Your task to perform on an android device: Open privacy settings Image 0: 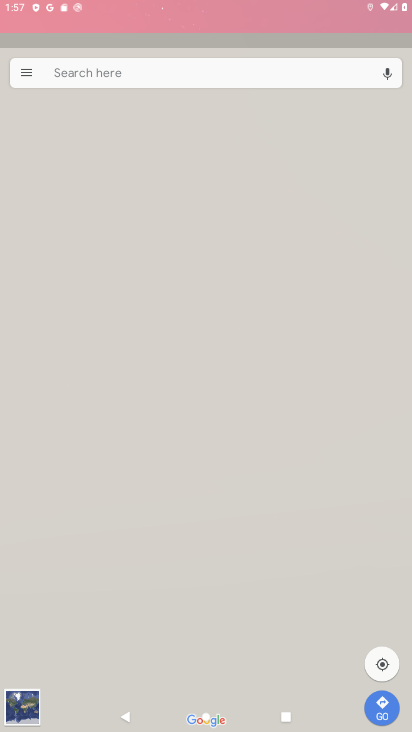
Step 0: press home button
Your task to perform on an android device: Open privacy settings Image 1: 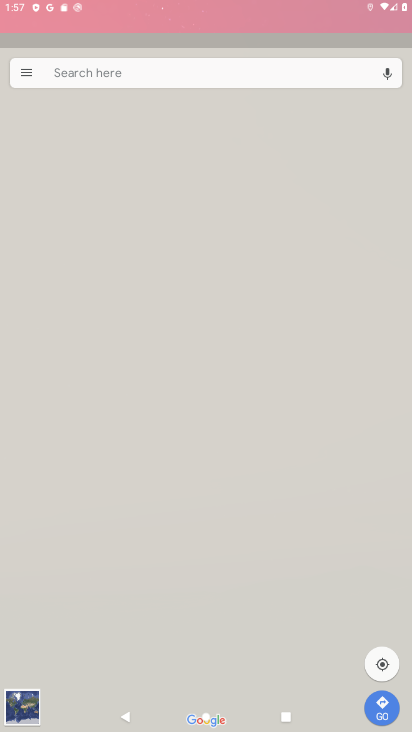
Step 1: click (89, 421)
Your task to perform on an android device: Open privacy settings Image 2: 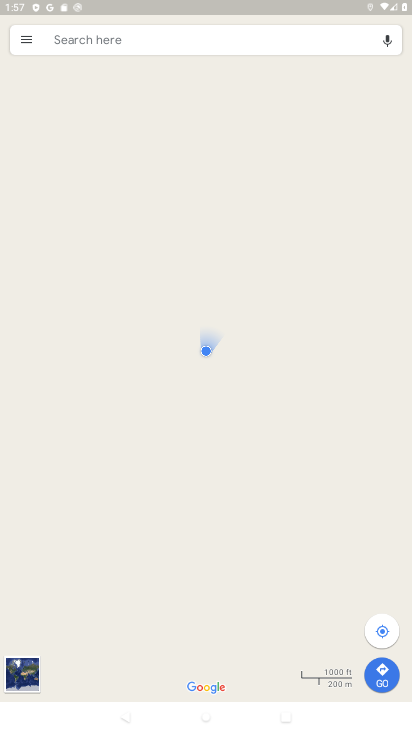
Step 2: task complete